Your task to perform on an android device: open chrome and create a bookmark for the current page Image 0: 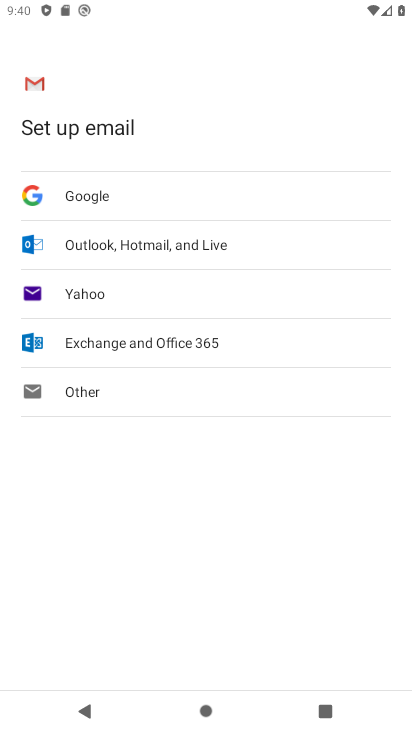
Step 0: press home button
Your task to perform on an android device: open chrome and create a bookmark for the current page Image 1: 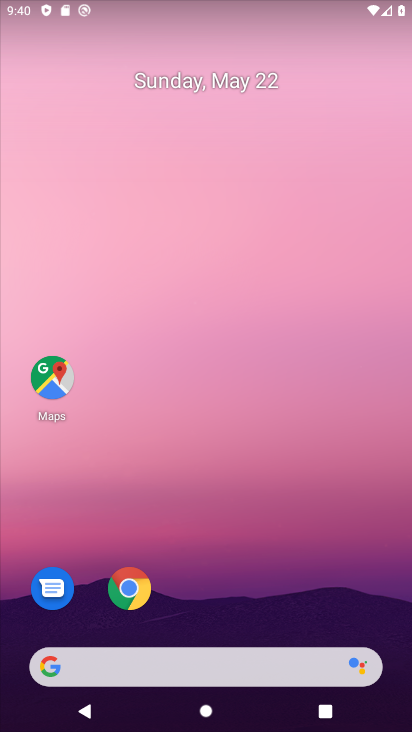
Step 1: drag from (293, 599) to (194, 178)
Your task to perform on an android device: open chrome and create a bookmark for the current page Image 2: 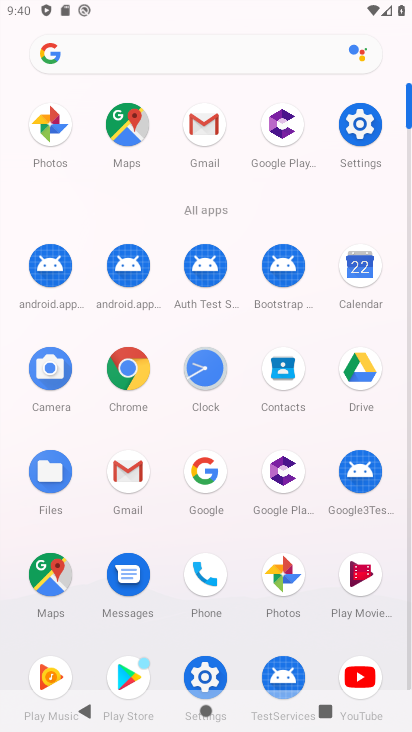
Step 2: click (139, 382)
Your task to perform on an android device: open chrome and create a bookmark for the current page Image 3: 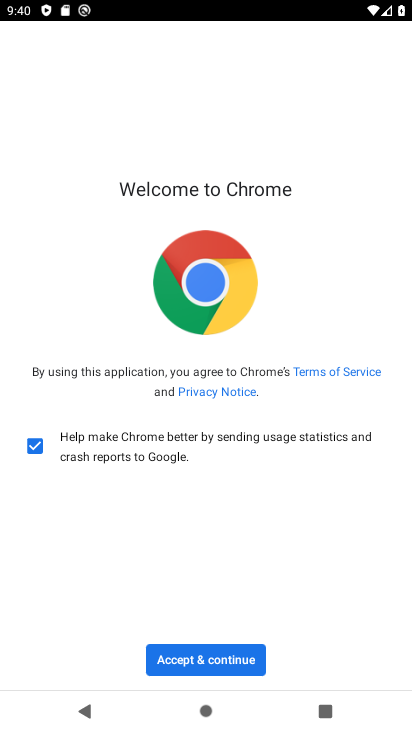
Step 3: click (219, 661)
Your task to perform on an android device: open chrome and create a bookmark for the current page Image 4: 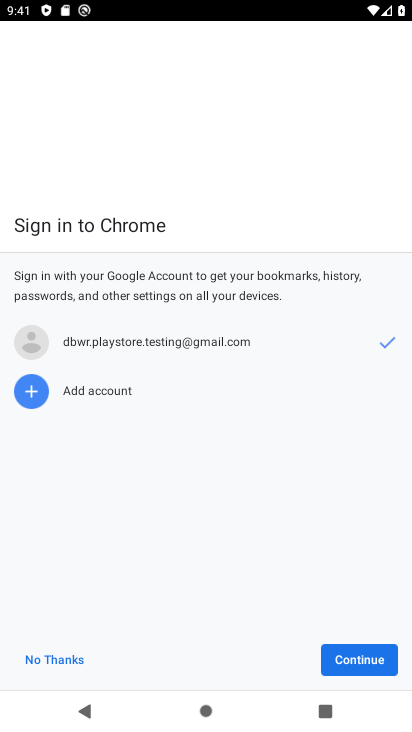
Step 4: click (364, 659)
Your task to perform on an android device: open chrome and create a bookmark for the current page Image 5: 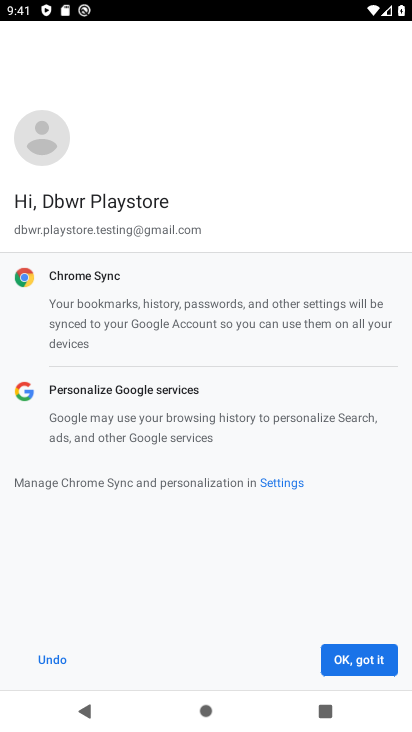
Step 5: click (364, 659)
Your task to perform on an android device: open chrome and create a bookmark for the current page Image 6: 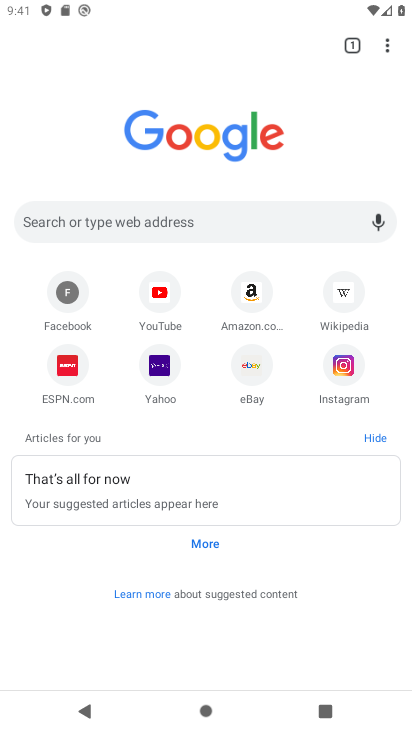
Step 6: click (384, 56)
Your task to perform on an android device: open chrome and create a bookmark for the current page Image 7: 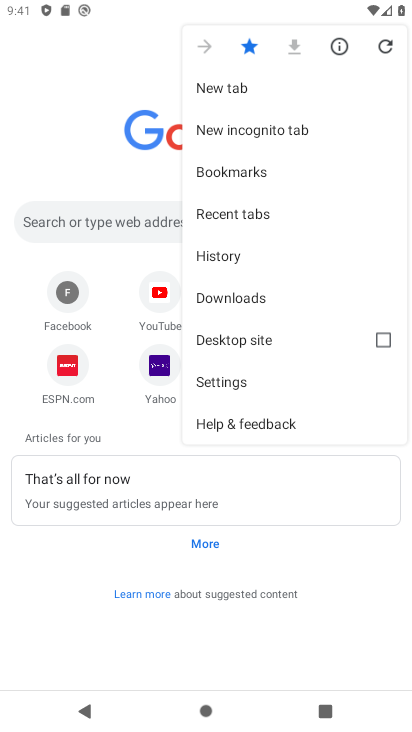
Step 7: task complete